Your task to perform on an android device: Open Google Maps Image 0: 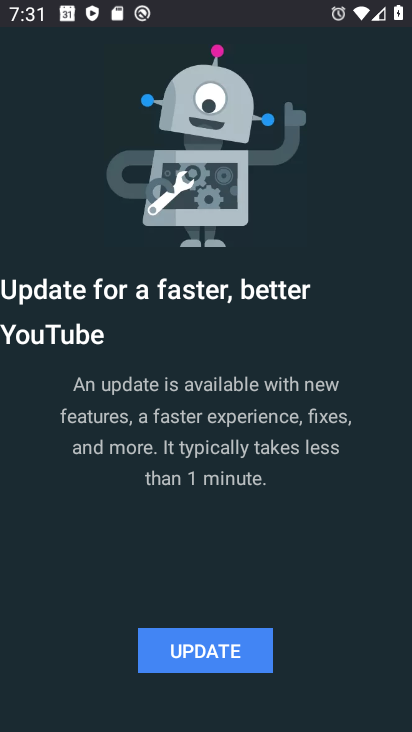
Step 0: press back button
Your task to perform on an android device: Open Google Maps Image 1: 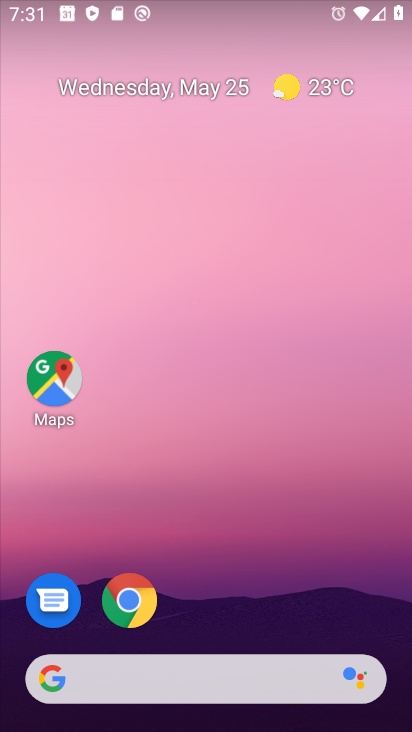
Step 1: click (56, 380)
Your task to perform on an android device: Open Google Maps Image 2: 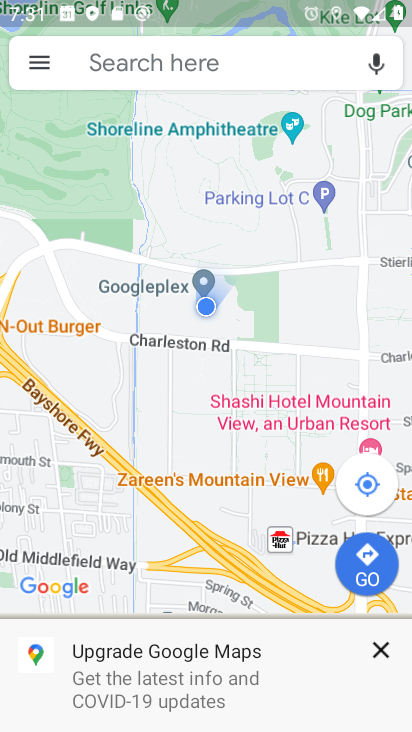
Step 2: task complete